Your task to perform on an android device: Is it going to rain this weekend? Image 0: 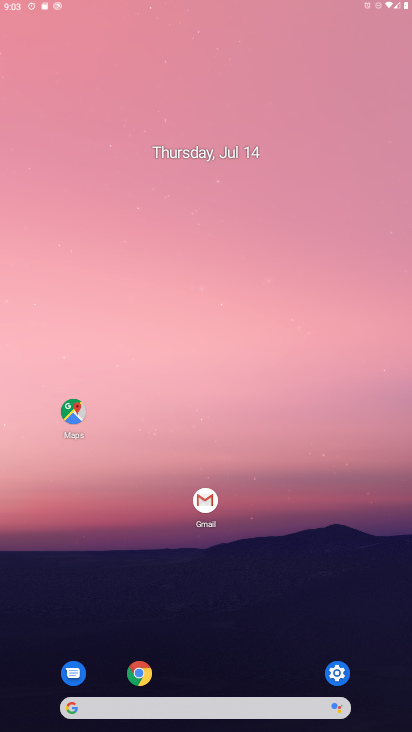
Step 0: press home button
Your task to perform on an android device: Is it going to rain this weekend? Image 1: 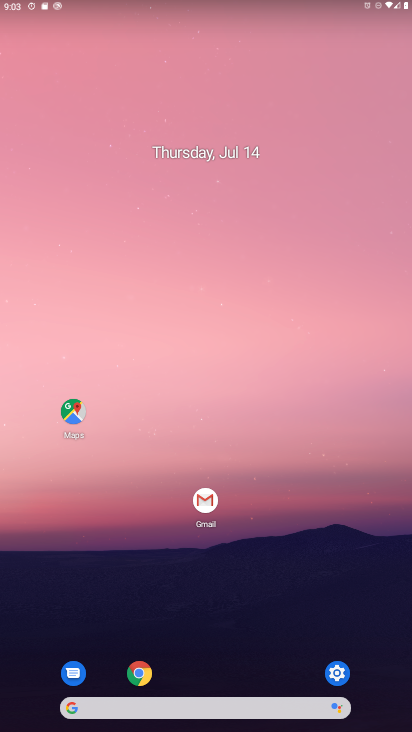
Step 1: drag from (238, 709) to (328, 8)
Your task to perform on an android device: Is it going to rain this weekend? Image 2: 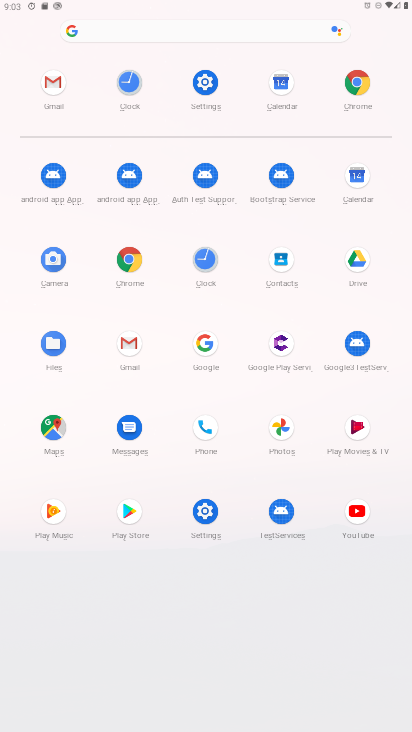
Step 2: click (281, 438)
Your task to perform on an android device: Is it going to rain this weekend? Image 3: 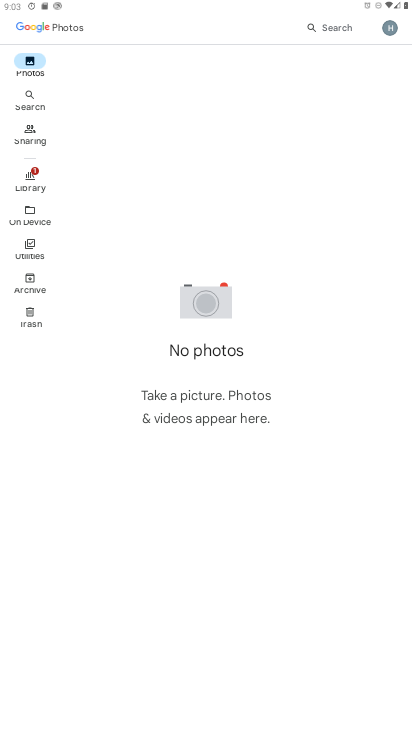
Step 3: press home button
Your task to perform on an android device: Is it going to rain this weekend? Image 4: 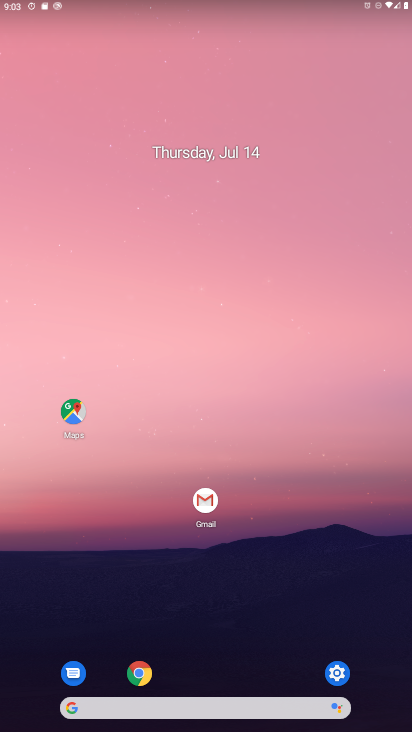
Step 4: click (234, 709)
Your task to perform on an android device: Is it going to rain this weekend? Image 5: 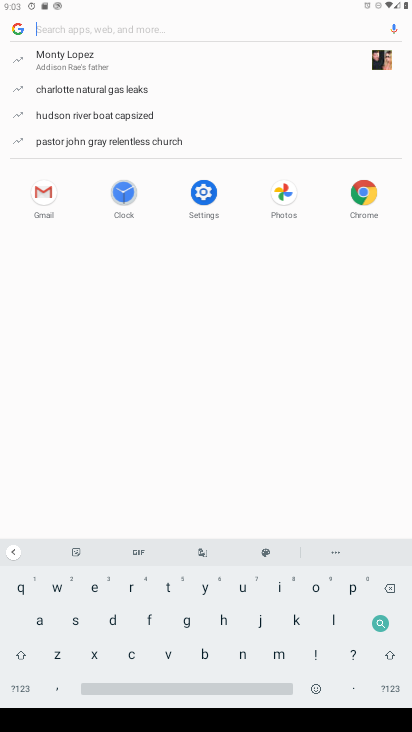
Step 5: click (125, 584)
Your task to perform on an android device: Is it going to rain this weekend? Image 6: 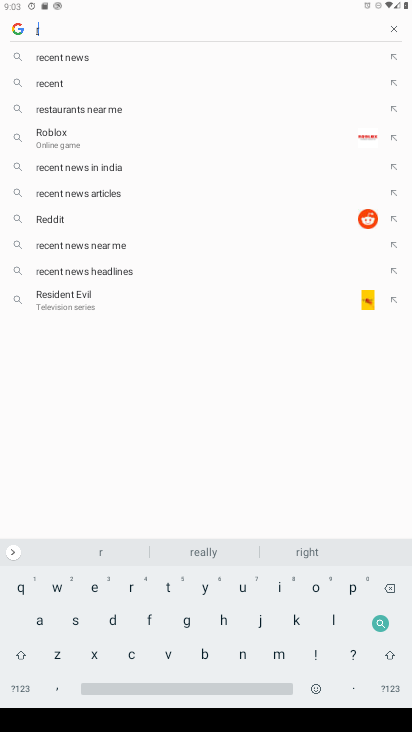
Step 6: click (36, 614)
Your task to perform on an android device: Is it going to rain this weekend? Image 7: 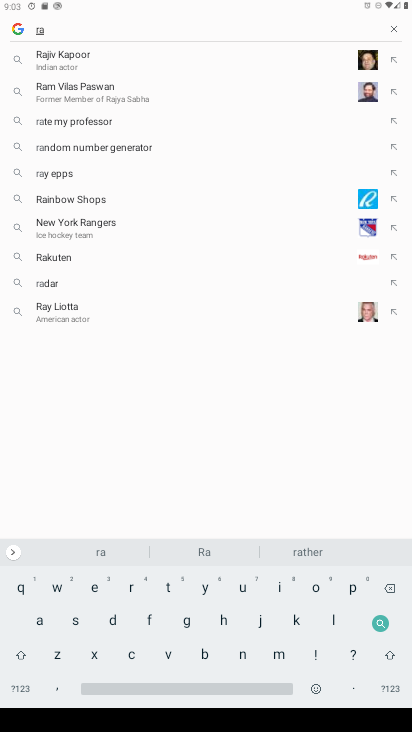
Step 7: click (283, 589)
Your task to perform on an android device: Is it going to rain this weekend? Image 8: 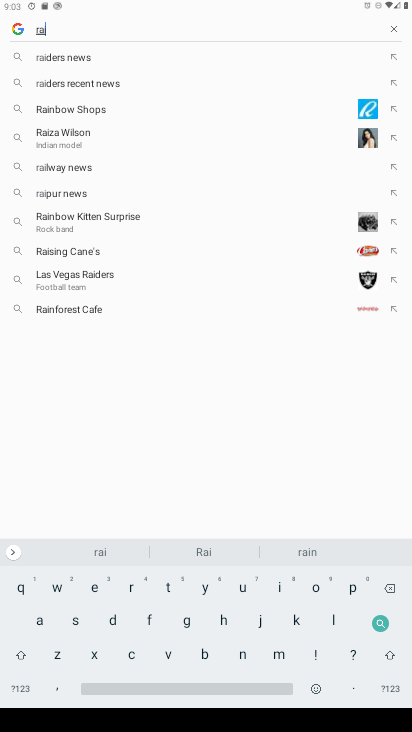
Step 8: click (241, 655)
Your task to perform on an android device: Is it going to rain this weekend? Image 9: 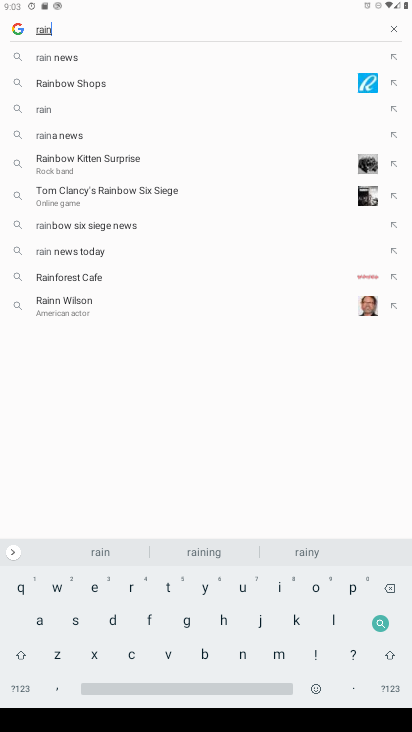
Step 9: click (208, 688)
Your task to perform on an android device: Is it going to rain this weekend? Image 10: 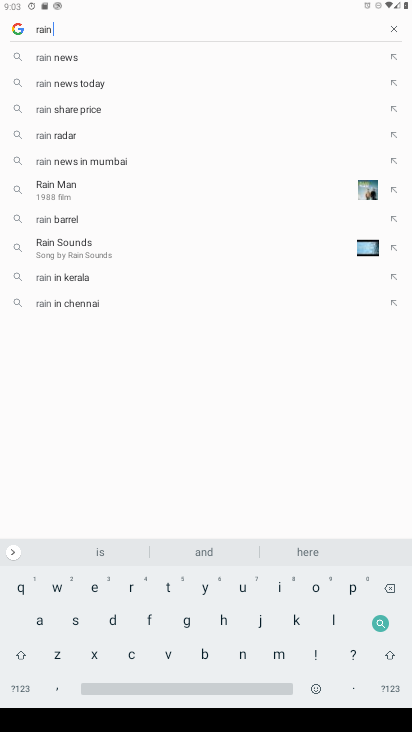
Step 10: click (168, 593)
Your task to perform on an android device: Is it going to rain this weekend? Image 11: 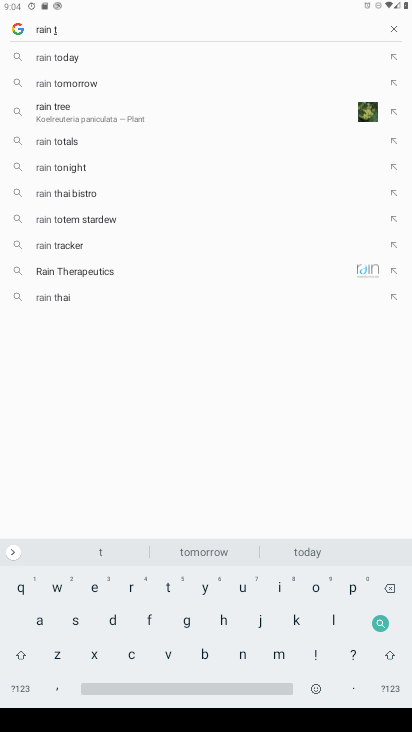
Step 11: click (220, 622)
Your task to perform on an android device: Is it going to rain this weekend? Image 12: 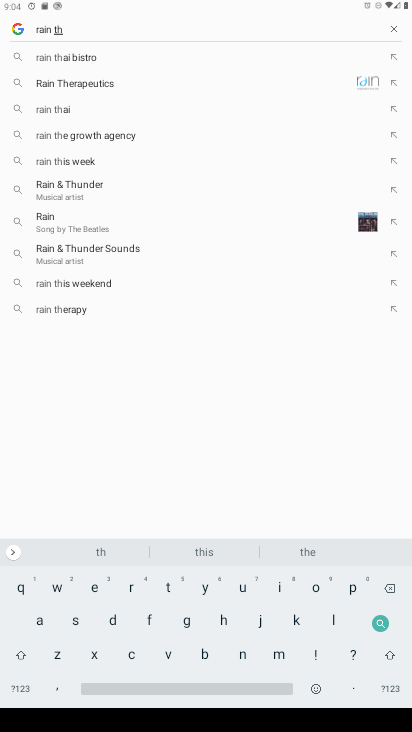
Step 12: click (279, 585)
Your task to perform on an android device: Is it going to rain this weekend? Image 13: 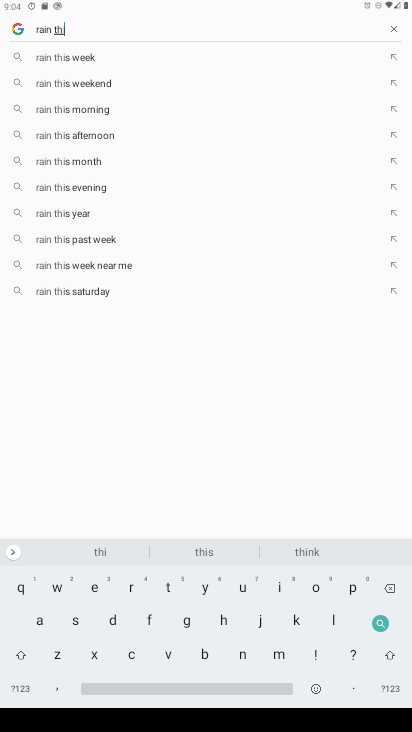
Step 13: click (78, 617)
Your task to perform on an android device: Is it going to rain this weekend? Image 14: 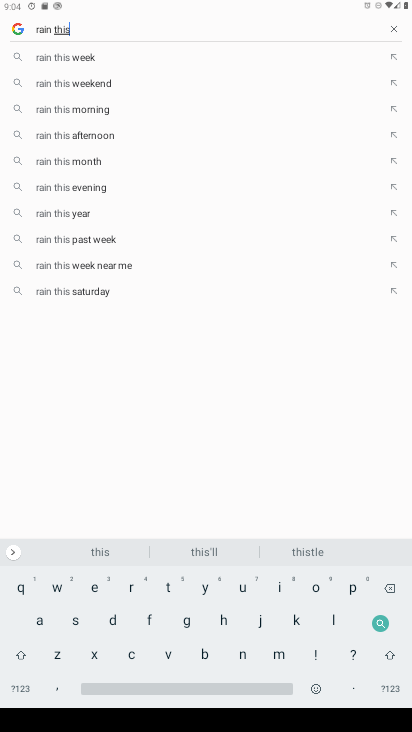
Step 14: click (82, 88)
Your task to perform on an android device: Is it going to rain this weekend? Image 15: 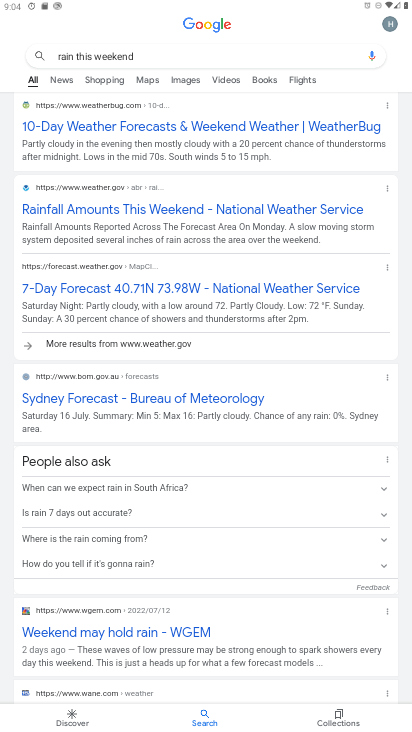
Step 15: task complete